Your task to perform on an android device: set the timer Image 0: 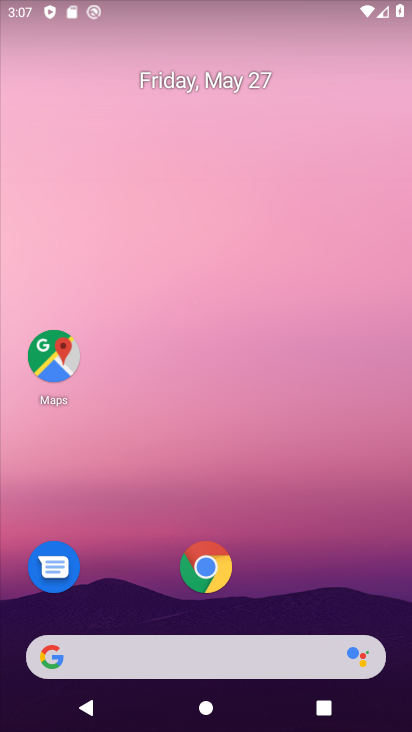
Step 0: drag from (225, 595) to (275, 174)
Your task to perform on an android device: set the timer Image 1: 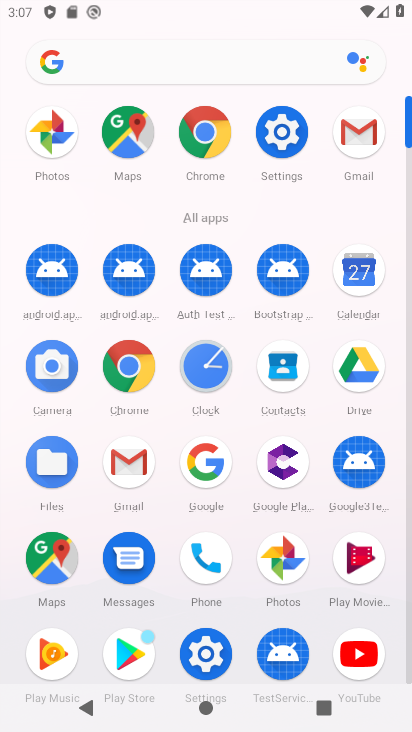
Step 1: click (213, 363)
Your task to perform on an android device: set the timer Image 2: 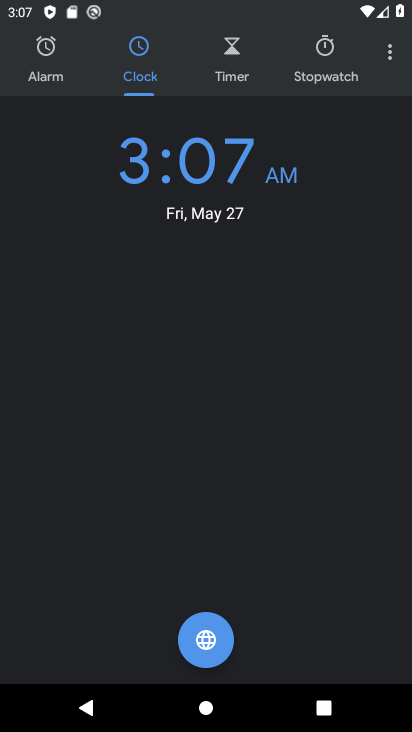
Step 2: click (228, 55)
Your task to perform on an android device: set the timer Image 3: 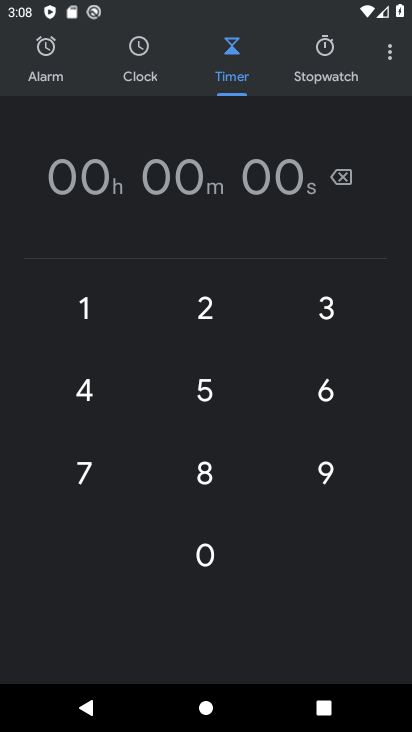
Step 3: click (225, 321)
Your task to perform on an android device: set the timer Image 4: 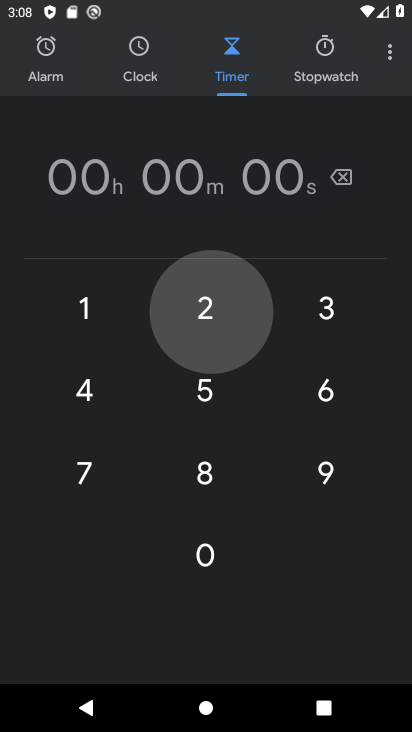
Step 4: click (323, 320)
Your task to perform on an android device: set the timer Image 5: 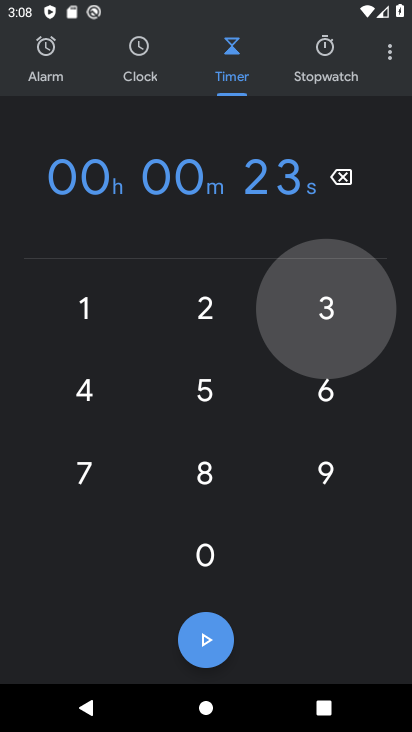
Step 5: click (186, 368)
Your task to perform on an android device: set the timer Image 6: 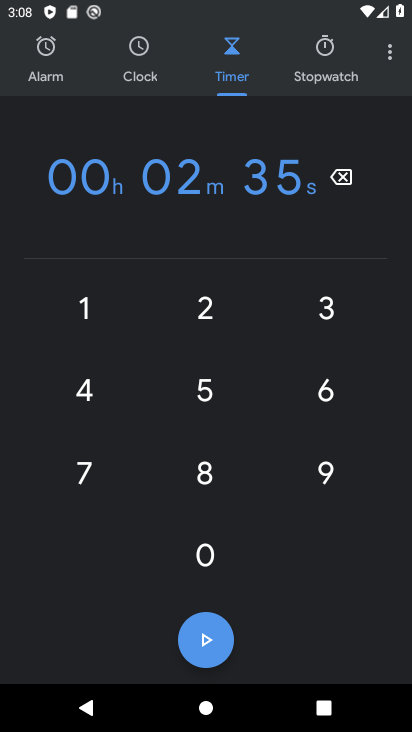
Step 6: click (208, 304)
Your task to perform on an android device: set the timer Image 7: 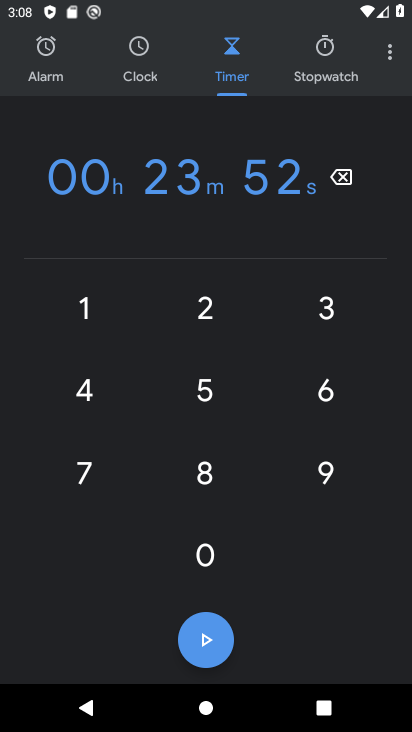
Step 7: click (217, 659)
Your task to perform on an android device: set the timer Image 8: 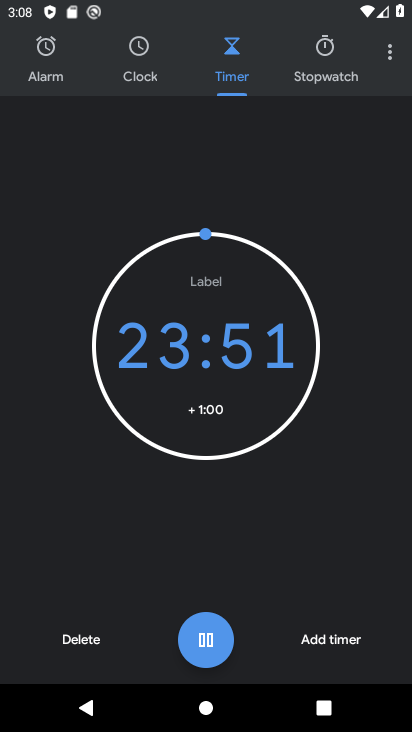
Step 8: task complete